Your task to perform on an android device: remove spam from my inbox in the gmail app Image 0: 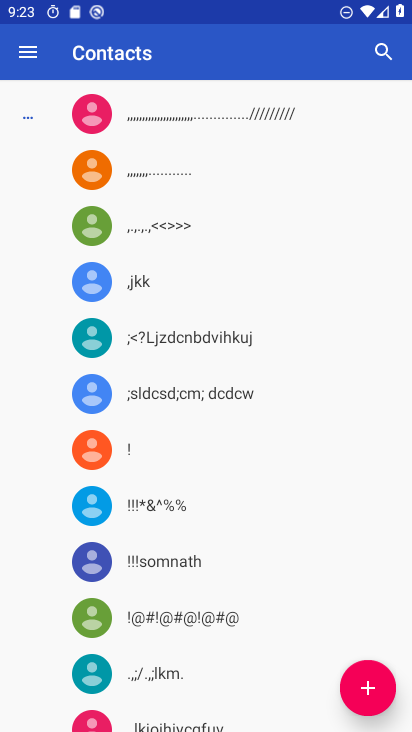
Step 0: press back button
Your task to perform on an android device: remove spam from my inbox in the gmail app Image 1: 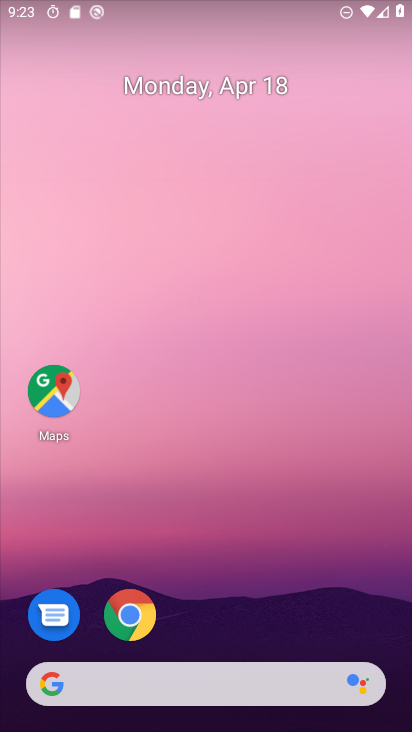
Step 1: drag from (196, 629) to (208, 454)
Your task to perform on an android device: remove spam from my inbox in the gmail app Image 2: 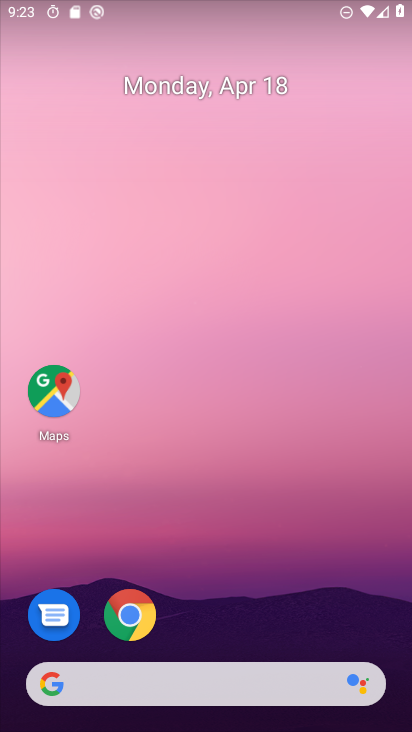
Step 2: drag from (212, 625) to (195, 241)
Your task to perform on an android device: remove spam from my inbox in the gmail app Image 3: 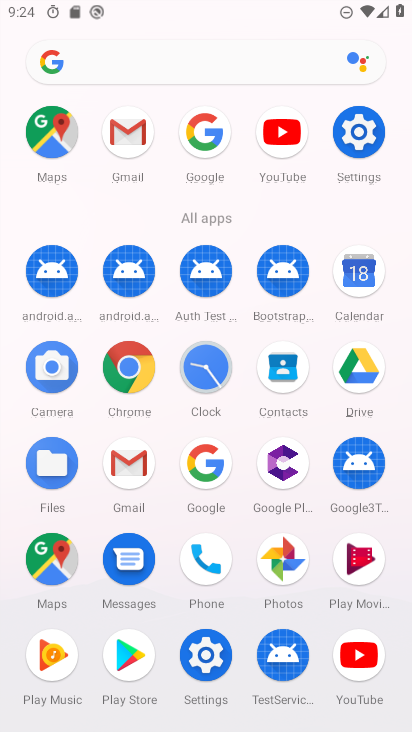
Step 3: click (116, 469)
Your task to perform on an android device: remove spam from my inbox in the gmail app Image 4: 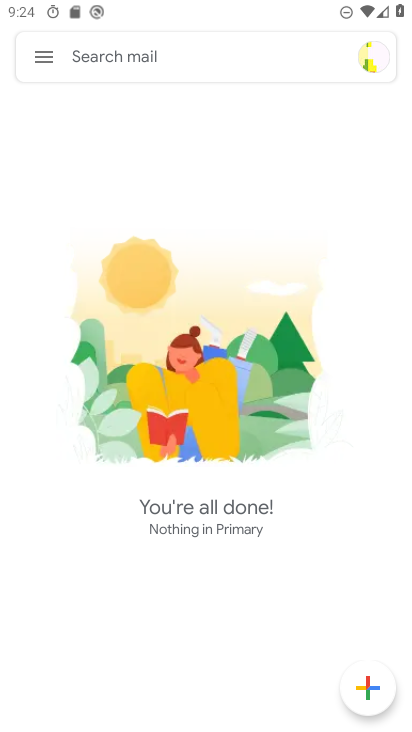
Step 4: click (36, 61)
Your task to perform on an android device: remove spam from my inbox in the gmail app Image 5: 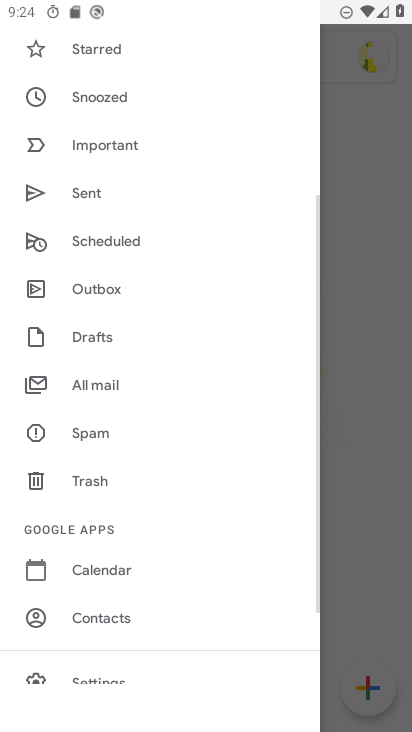
Step 5: click (93, 434)
Your task to perform on an android device: remove spam from my inbox in the gmail app Image 6: 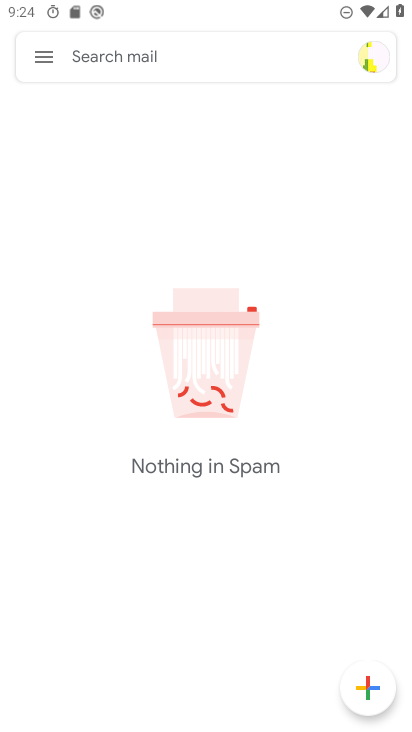
Step 6: task complete